Your task to perform on an android device: install app "Google Pay: Save, Pay, Manage" Image 0: 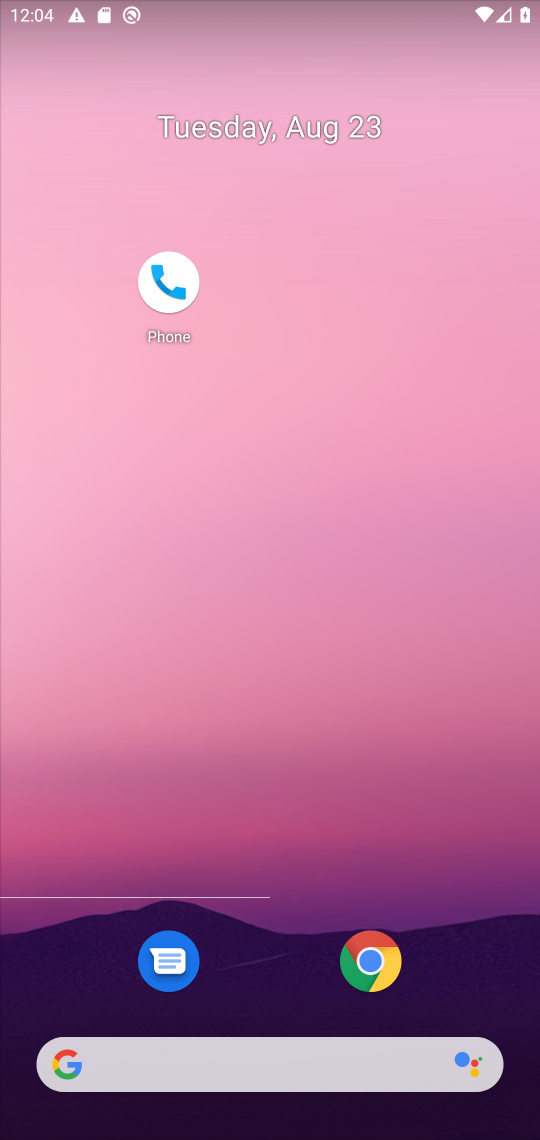
Step 0: drag from (277, 996) to (406, 81)
Your task to perform on an android device: install app "Google Pay: Save, Pay, Manage" Image 1: 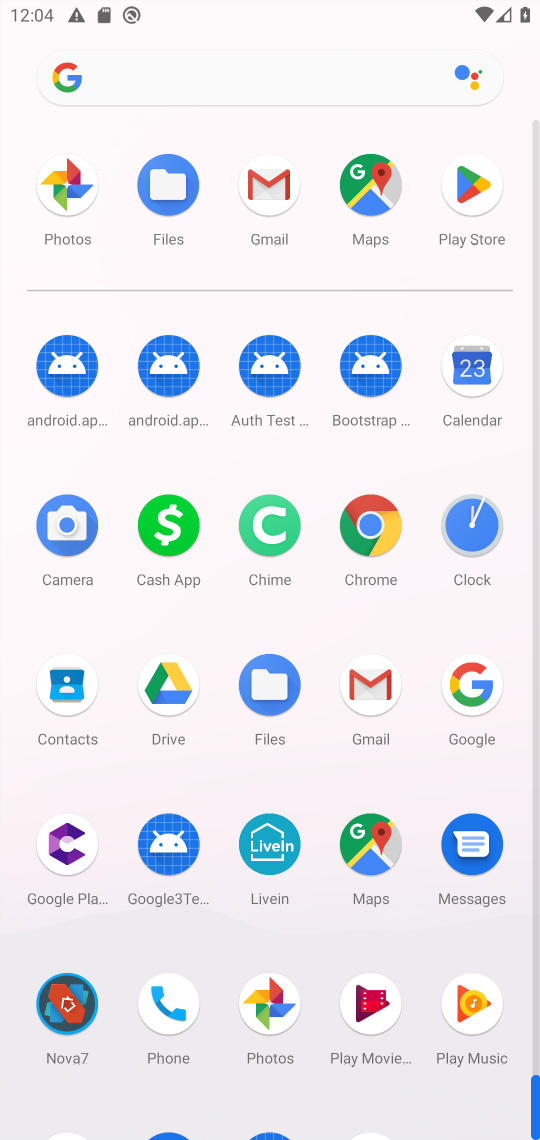
Step 1: click (459, 182)
Your task to perform on an android device: install app "Google Pay: Save, Pay, Manage" Image 2: 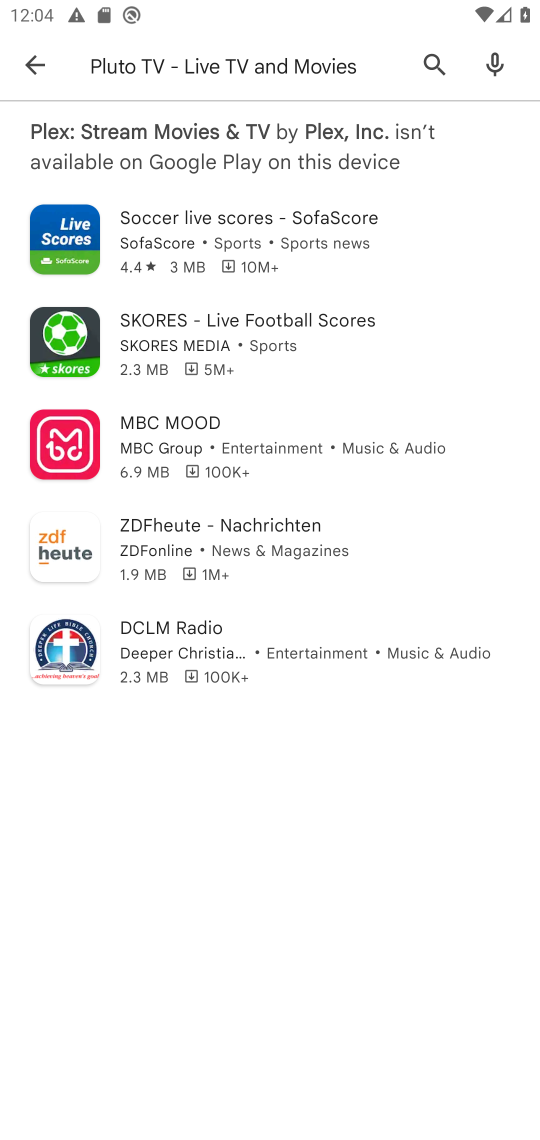
Step 2: click (435, 75)
Your task to perform on an android device: install app "Google Pay: Save, Pay, Manage" Image 3: 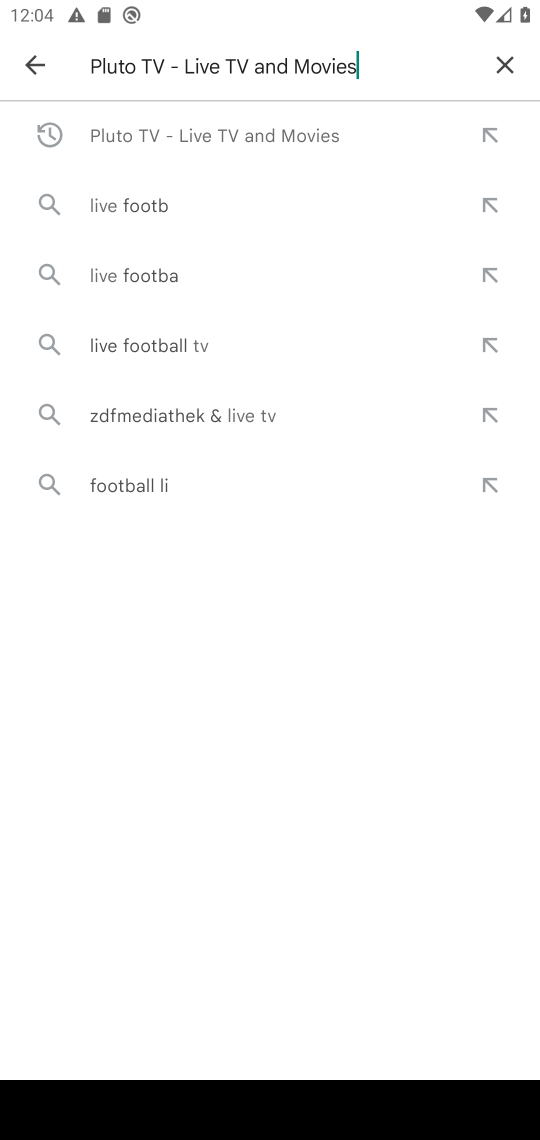
Step 3: click (506, 69)
Your task to perform on an android device: install app "Google Pay: Save, Pay, Manage" Image 4: 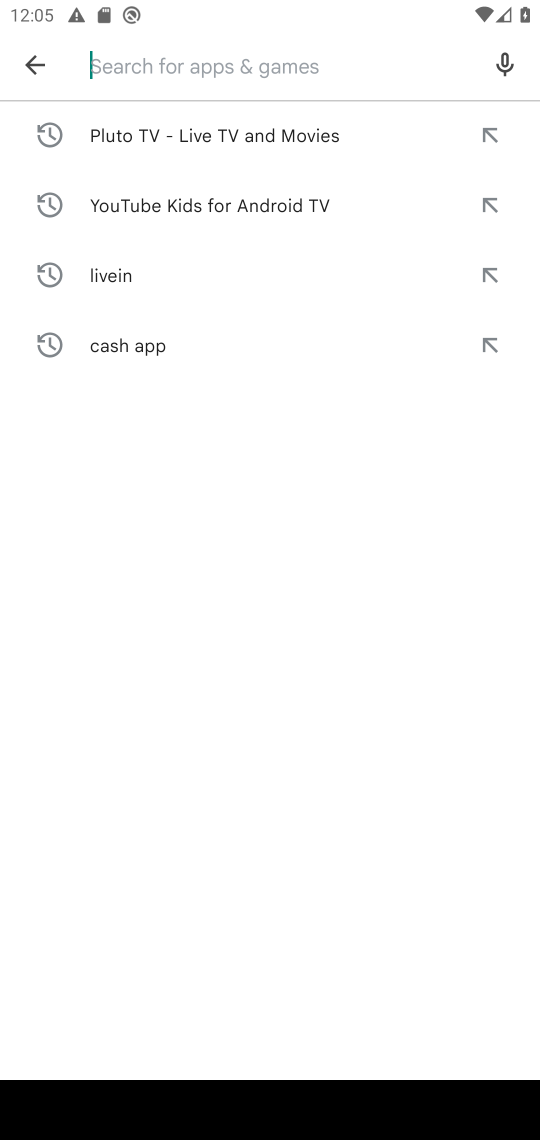
Step 4: type "google pay"
Your task to perform on an android device: install app "Google Pay: Save, Pay, Manage" Image 5: 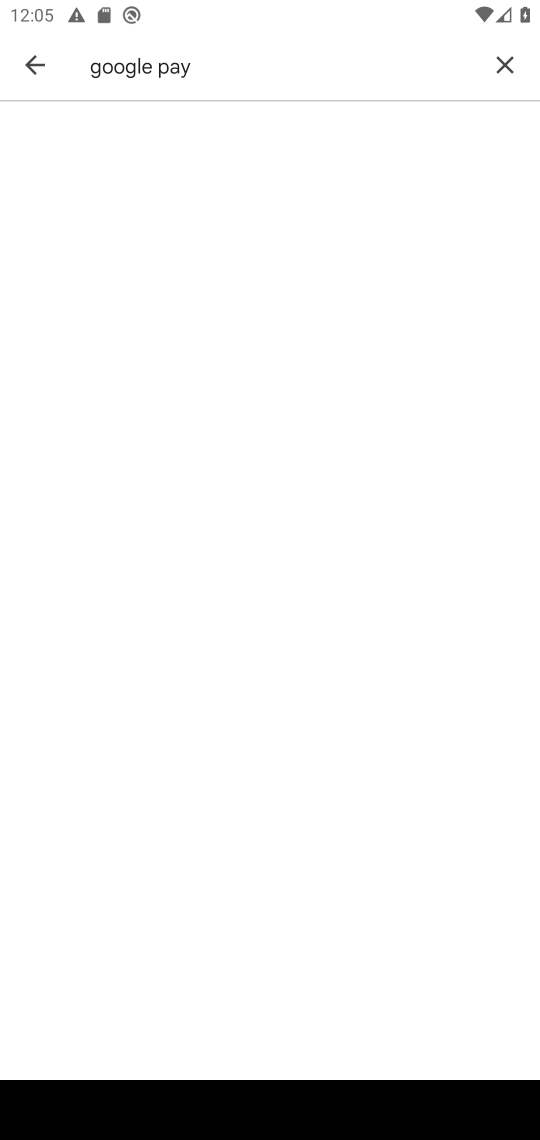
Step 5: task complete